Your task to perform on an android device: turn notification dots on Image 0: 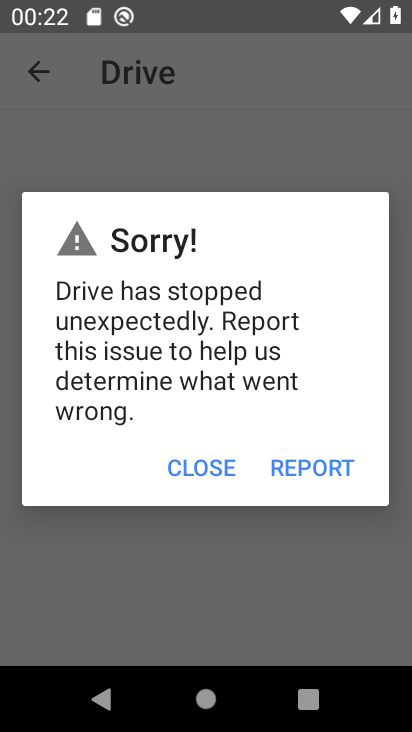
Step 0: press home button
Your task to perform on an android device: turn notification dots on Image 1: 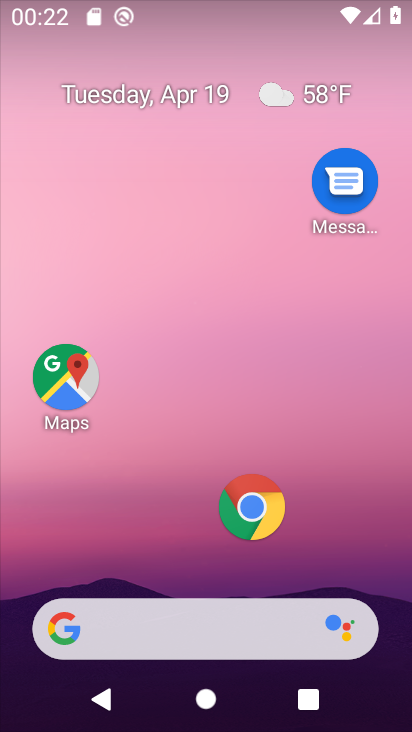
Step 1: drag from (211, 570) to (240, 72)
Your task to perform on an android device: turn notification dots on Image 2: 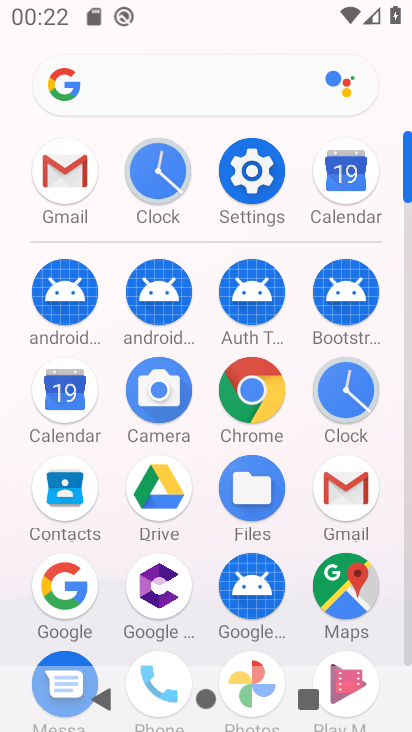
Step 2: click (255, 186)
Your task to perform on an android device: turn notification dots on Image 3: 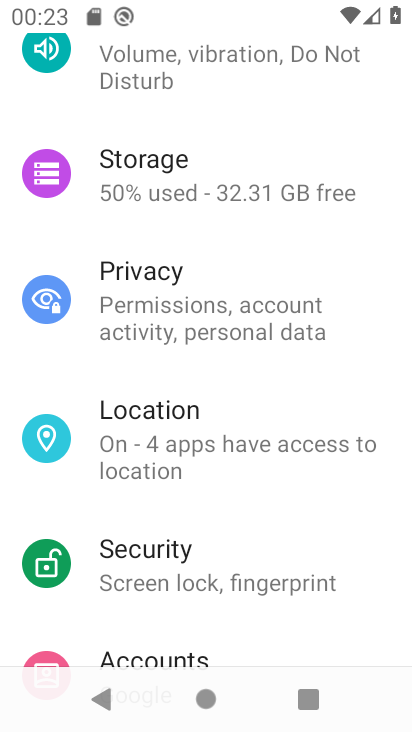
Step 3: drag from (170, 569) to (213, 621)
Your task to perform on an android device: turn notification dots on Image 4: 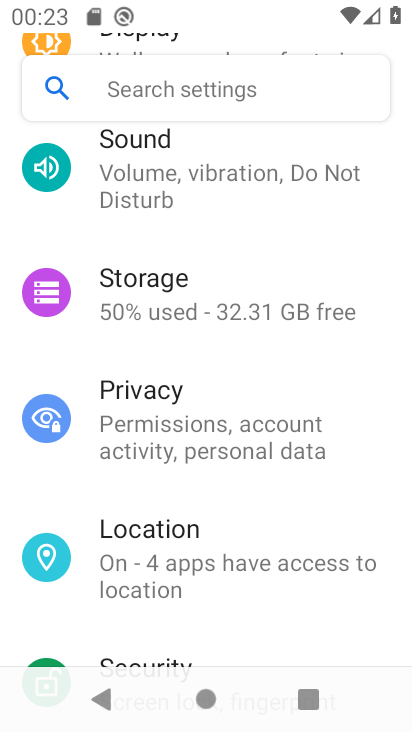
Step 4: drag from (218, 217) to (221, 530)
Your task to perform on an android device: turn notification dots on Image 5: 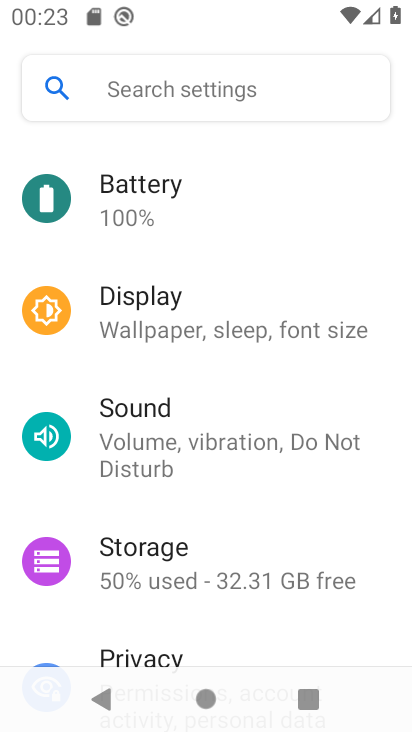
Step 5: drag from (234, 230) to (228, 701)
Your task to perform on an android device: turn notification dots on Image 6: 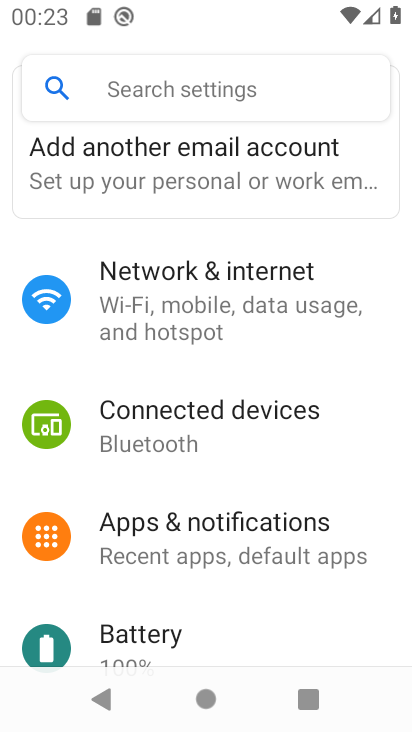
Step 6: click (211, 539)
Your task to perform on an android device: turn notification dots on Image 7: 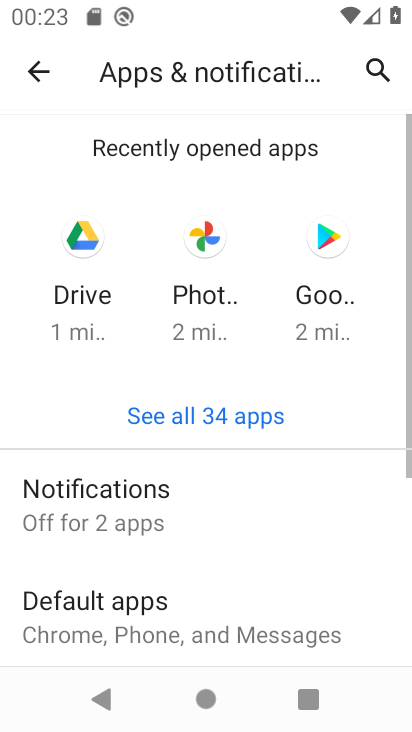
Step 7: click (120, 514)
Your task to perform on an android device: turn notification dots on Image 8: 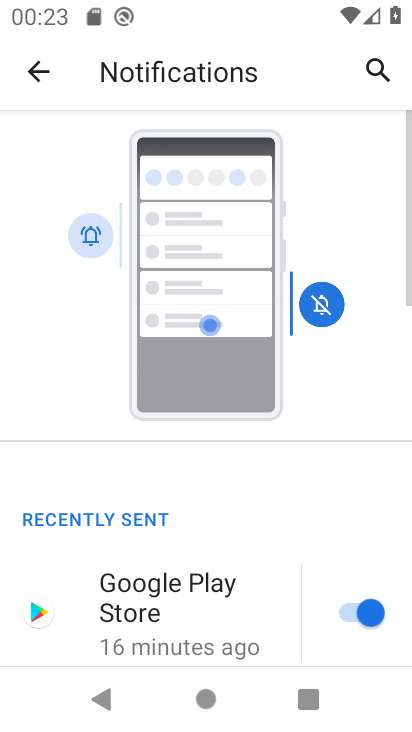
Step 8: drag from (176, 533) to (230, 72)
Your task to perform on an android device: turn notification dots on Image 9: 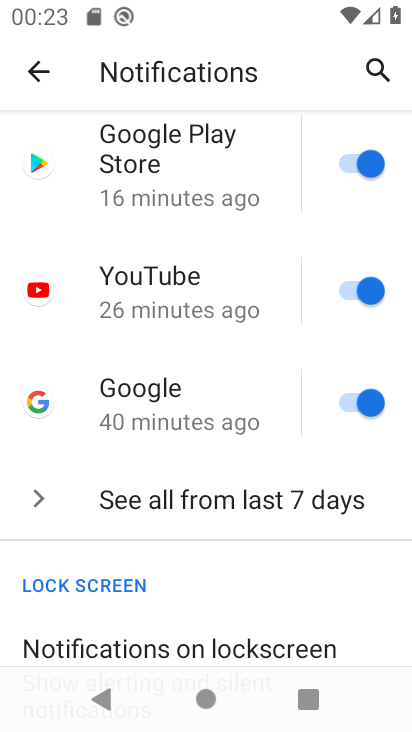
Step 9: drag from (196, 557) to (259, 171)
Your task to perform on an android device: turn notification dots on Image 10: 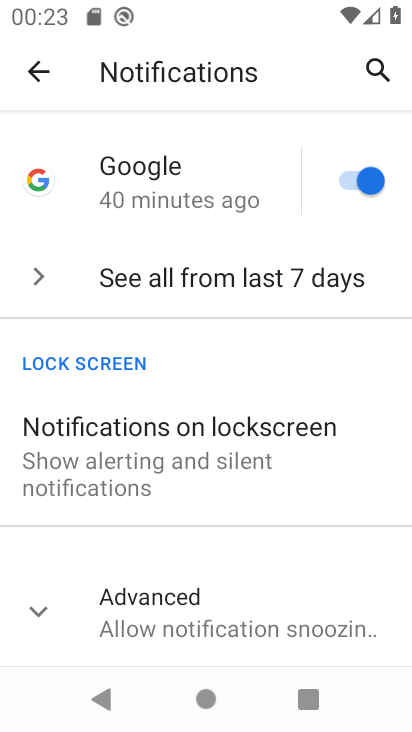
Step 10: click (166, 613)
Your task to perform on an android device: turn notification dots on Image 11: 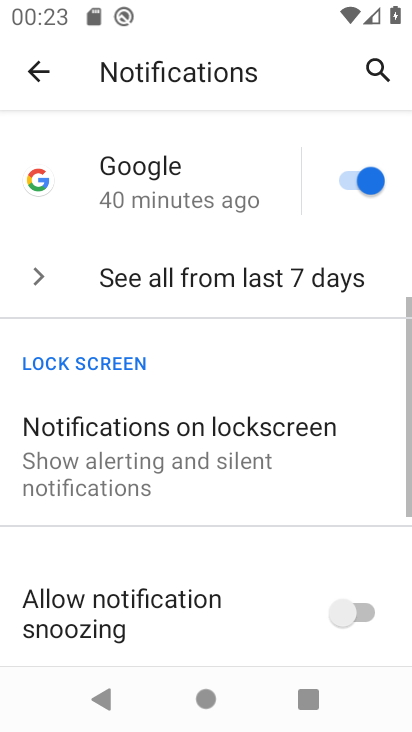
Step 11: task complete